Your task to perform on an android device: Go to notification settings Image 0: 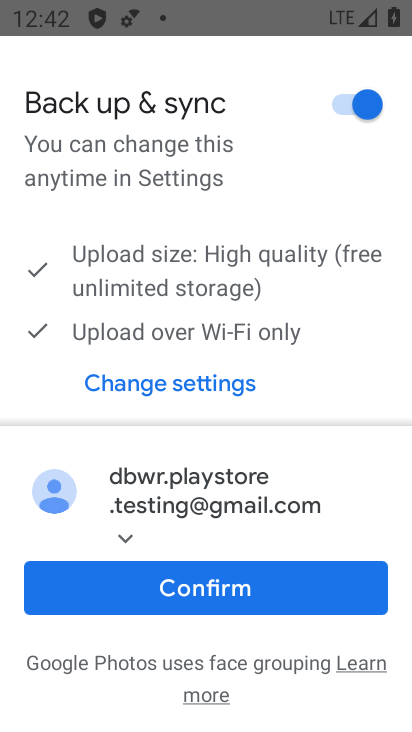
Step 0: press home button
Your task to perform on an android device: Go to notification settings Image 1: 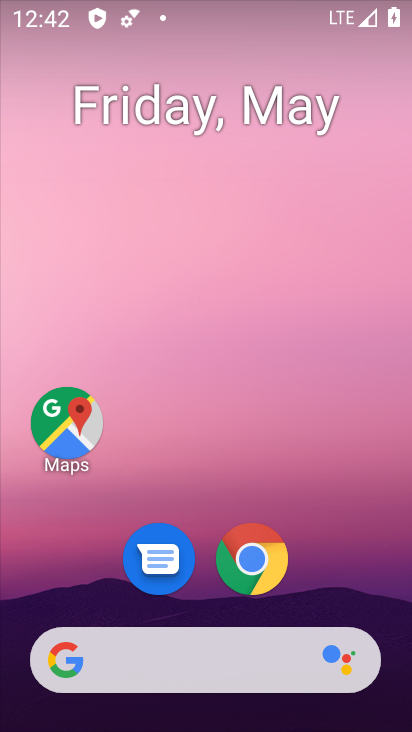
Step 1: drag from (363, 481) to (396, 84)
Your task to perform on an android device: Go to notification settings Image 2: 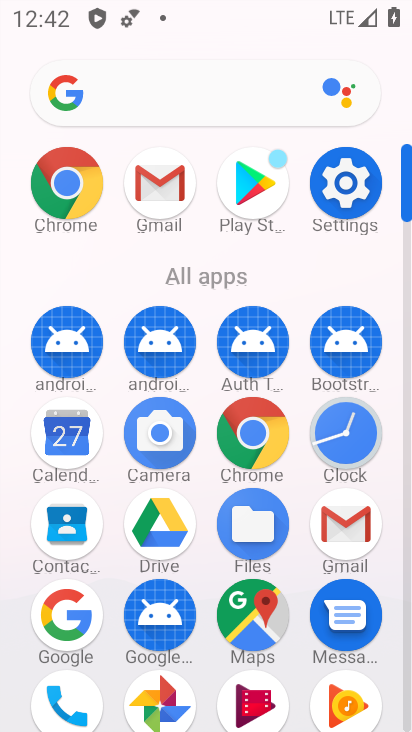
Step 2: click (338, 186)
Your task to perform on an android device: Go to notification settings Image 3: 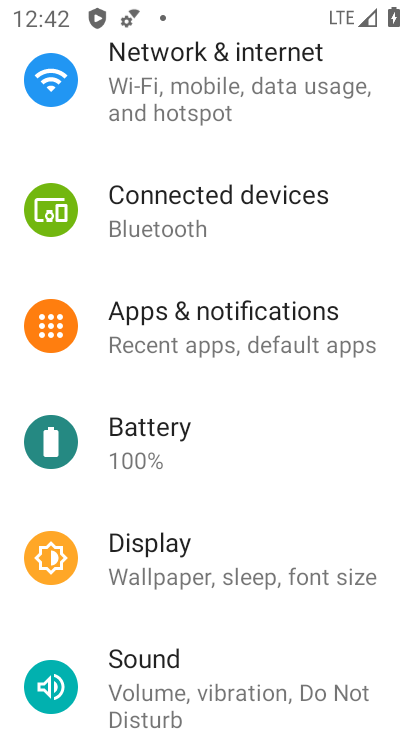
Step 3: click (247, 323)
Your task to perform on an android device: Go to notification settings Image 4: 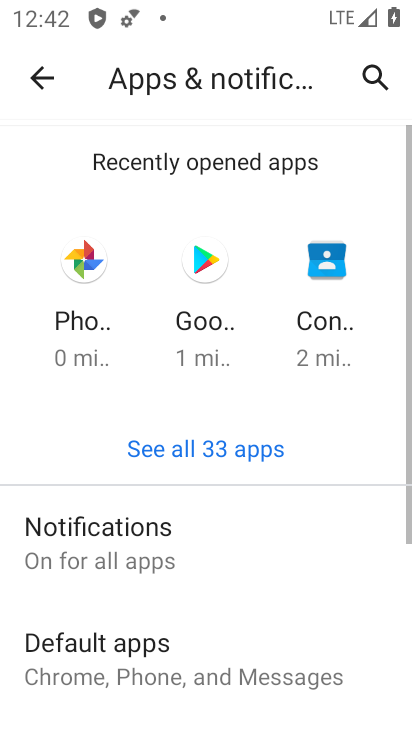
Step 4: click (124, 572)
Your task to perform on an android device: Go to notification settings Image 5: 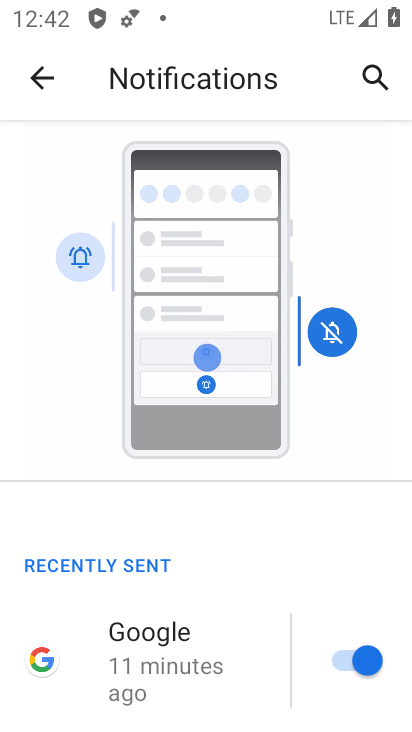
Step 5: task complete